Your task to perform on an android device: Is it going to rain this weekend? Image 0: 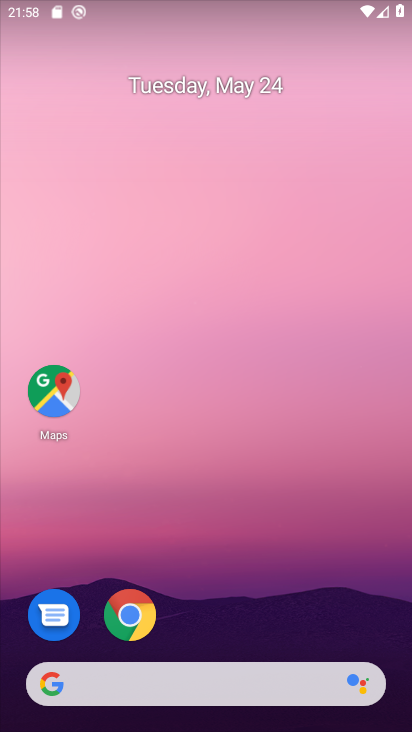
Step 0: click (136, 608)
Your task to perform on an android device: Is it going to rain this weekend? Image 1: 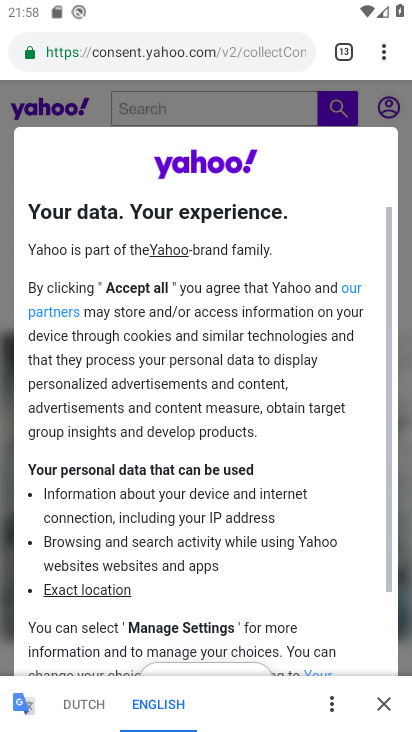
Step 1: click (378, 44)
Your task to perform on an android device: Is it going to rain this weekend? Image 2: 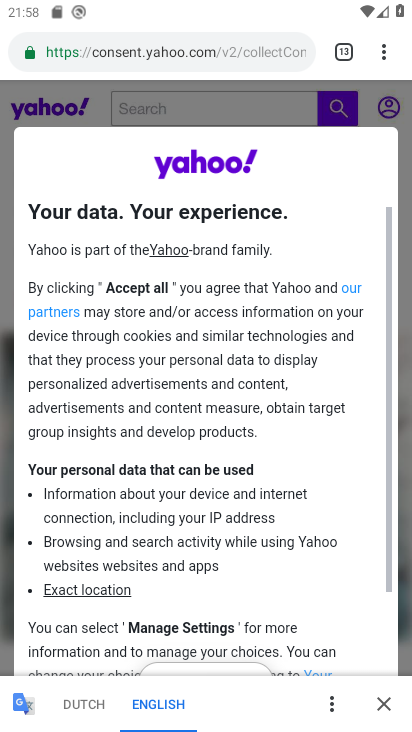
Step 2: click (381, 42)
Your task to perform on an android device: Is it going to rain this weekend? Image 3: 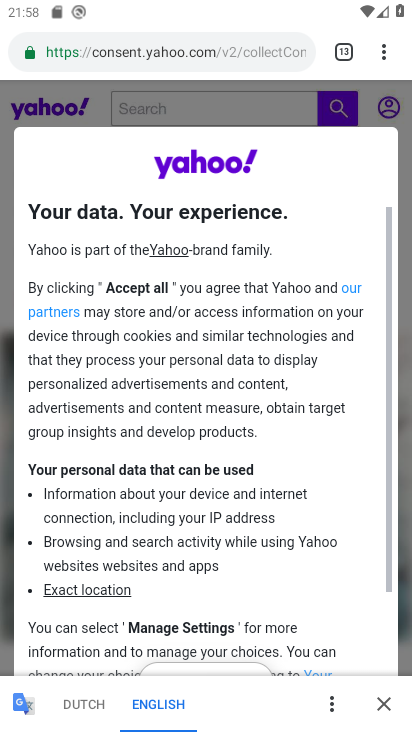
Step 3: click (375, 47)
Your task to perform on an android device: Is it going to rain this weekend? Image 4: 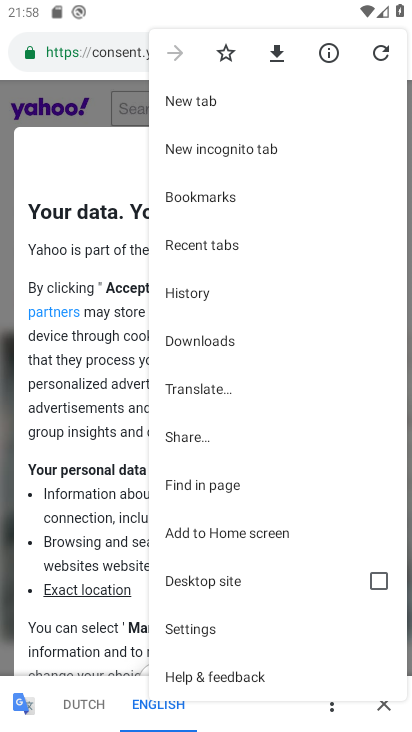
Step 4: click (208, 112)
Your task to perform on an android device: Is it going to rain this weekend? Image 5: 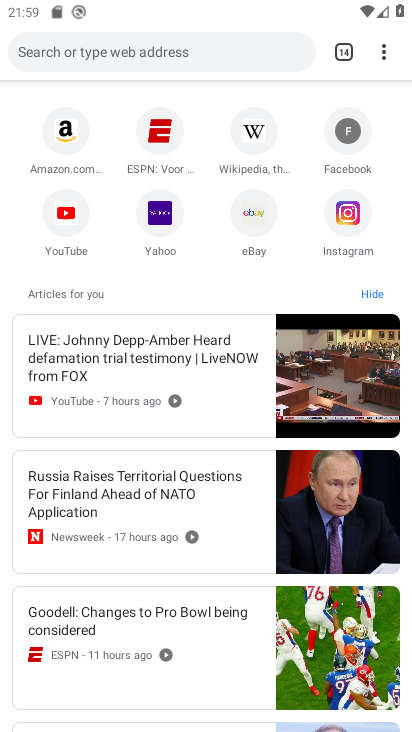
Step 5: click (129, 49)
Your task to perform on an android device: Is it going to rain this weekend? Image 6: 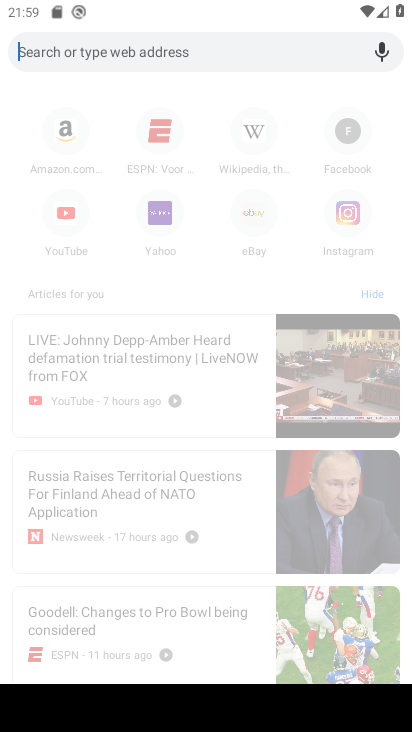
Step 6: type "Is it going to rain this weekend?"
Your task to perform on an android device: Is it going to rain this weekend? Image 7: 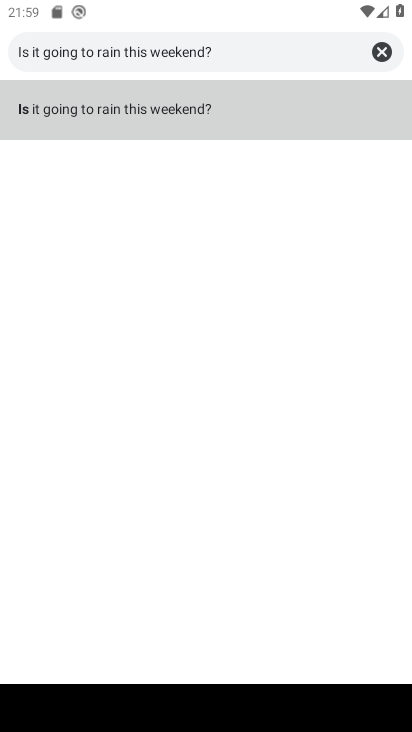
Step 7: click (135, 113)
Your task to perform on an android device: Is it going to rain this weekend? Image 8: 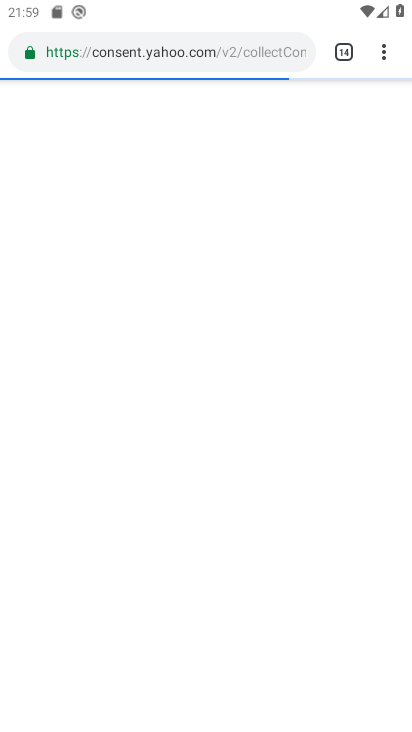
Step 8: task complete